Your task to perform on an android device: Open calendar and show me the third week of next month Image 0: 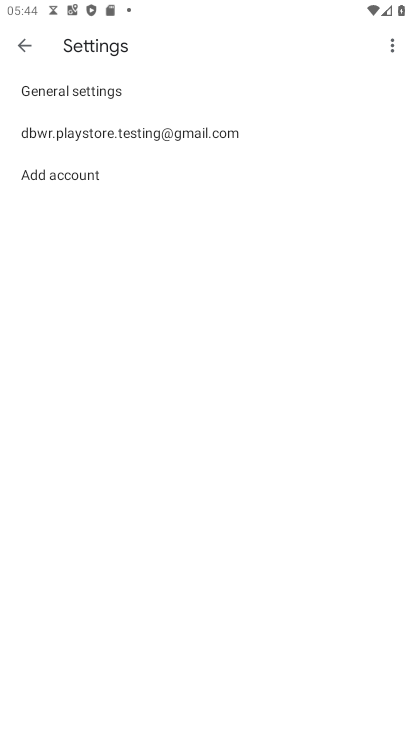
Step 0: press home button
Your task to perform on an android device: Open calendar and show me the third week of next month Image 1: 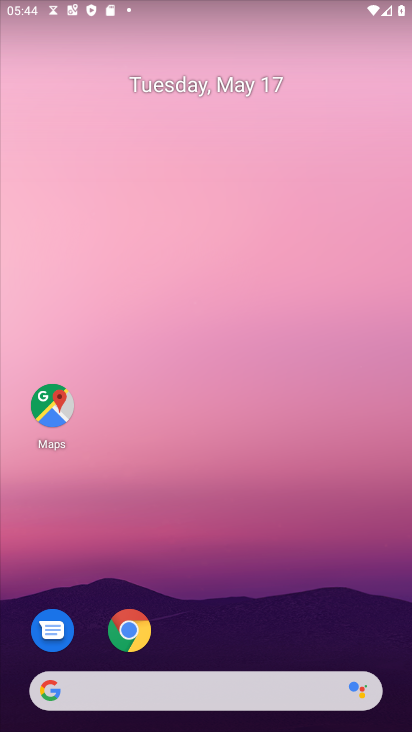
Step 1: drag from (208, 626) to (258, 0)
Your task to perform on an android device: Open calendar and show me the third week of next month Image 2: 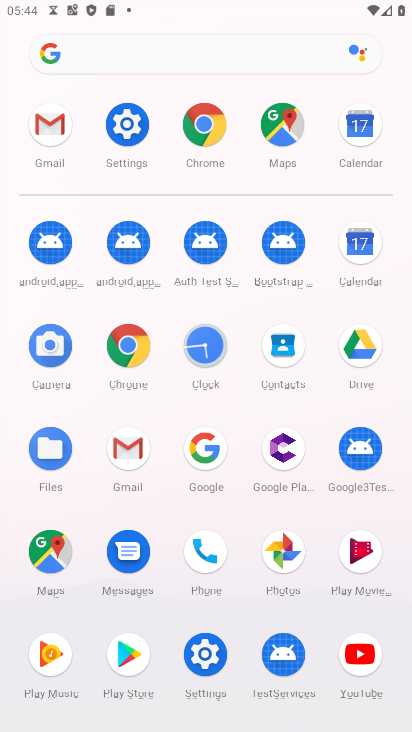
Step 2: click (343, 127)
Your task to perform on an android device: Open calendar and show me the third week of next month Image 3: 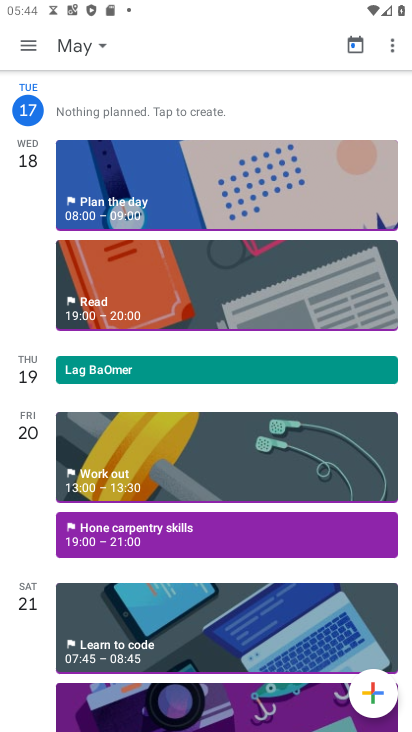
Step 3: click (81, 46)
Your task to perform on an android device: Open calendar and show me the third week of next month Image 4: 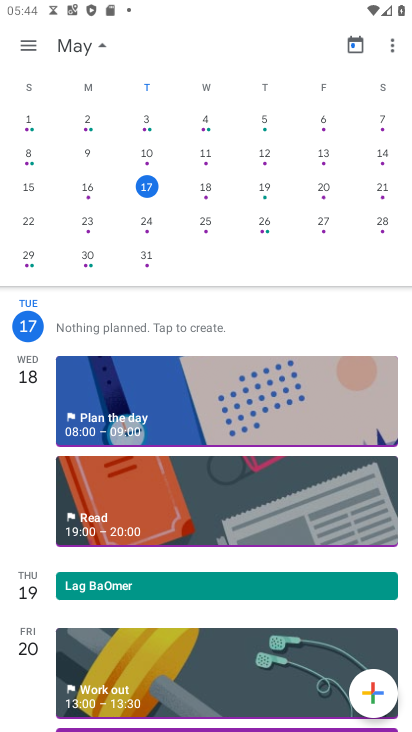
Step 4: drag from (380, 174) to (59, 174)
Your task to perform on an android device: Open calendar and show me the third week of next month Image 5: 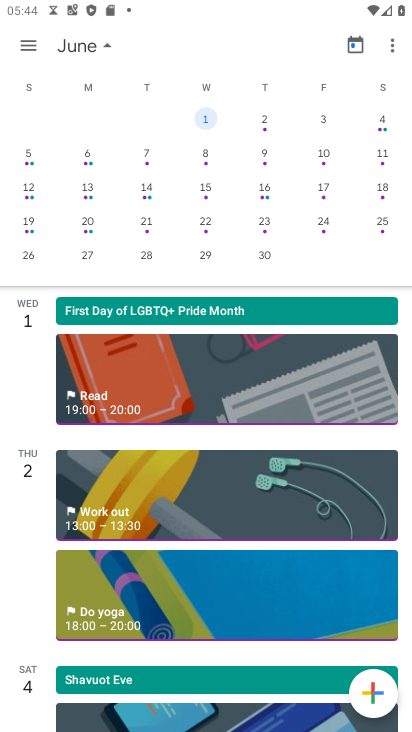
Step 5: click (10, 218)
Your task to perform on an android device: Open calendar and show me the third week of next month Image 6: 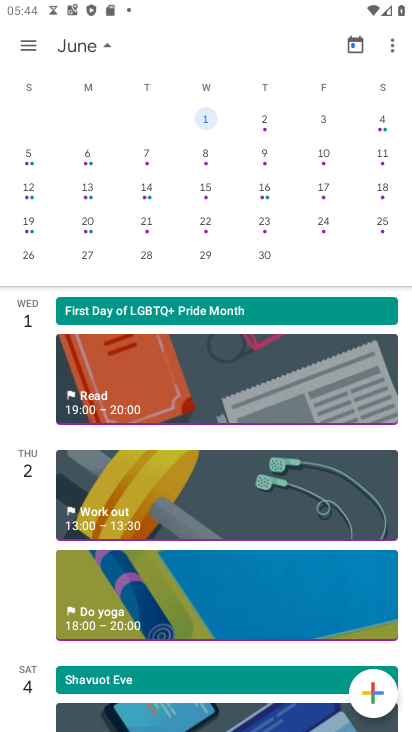
Step 6: click (23, 223)
Your task to perform on an android device: Open calendar and show me the third week of next month Image 7: 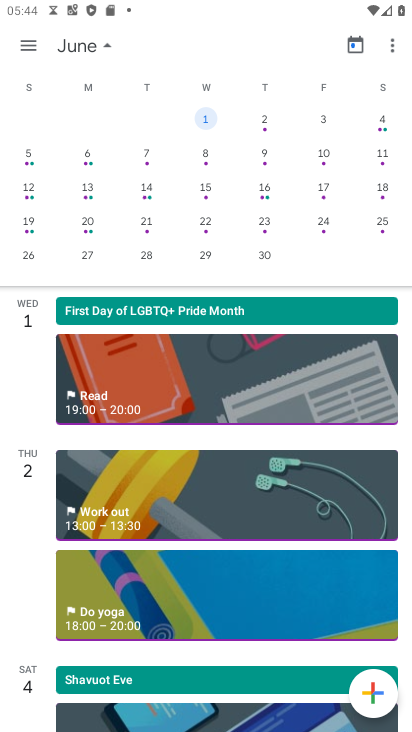
Step 7: click (28, 223)
Your task to perform on an android device: Open calendar and show me the third week of next month Image 8: 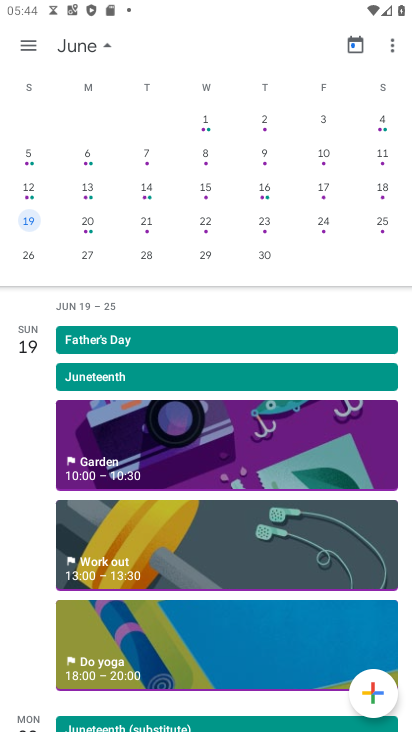
Step 8: task complete